Your task to perform on an android device: open app "Adobe Express: Graphic Design" (install if not already installed) Image 0: 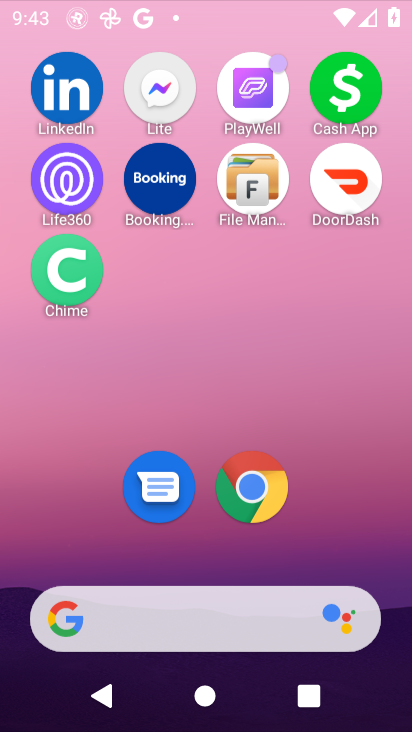
Step 0: drag from (272, 655) to (221, 191)
Your task to perform on an android device: open app "Adobe Express: Graphic Design" (install if not already installed) Image 1: 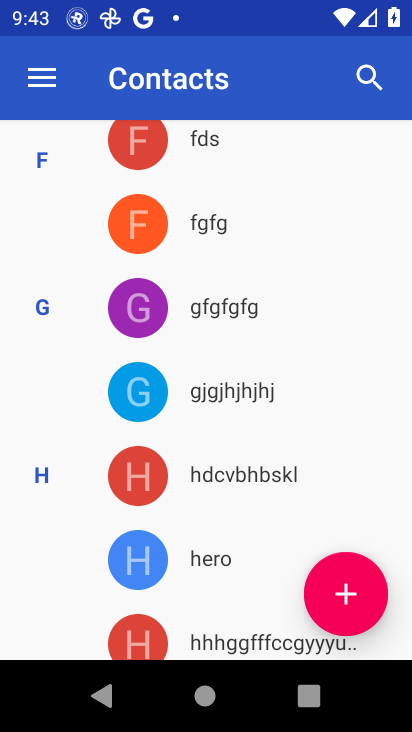
Step 1: press back button
Your task to perform on an android device: open app "Adobe Express: Graphic Design" (install if not already installed) Image 2: 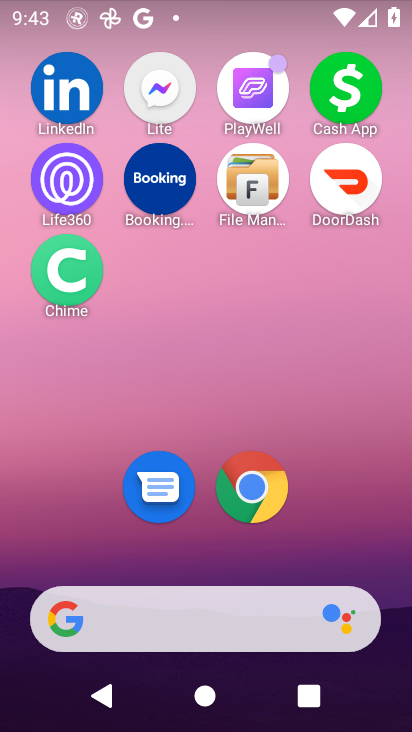
Step 2: drag from (238, 664) to (194, 204)
Your task to perform on an android device: open app "Adobe Express: Graphic Design" (install if not already installed) Image 3: 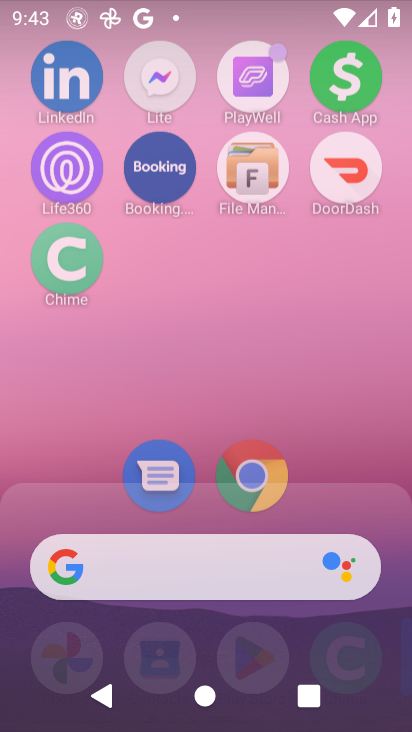
Step 3: drag from (221, 647) to (193, 254)
Your task to perform on an android device: open app "Adobe Express: Graphic Design" (install if not already installed) Image 4: 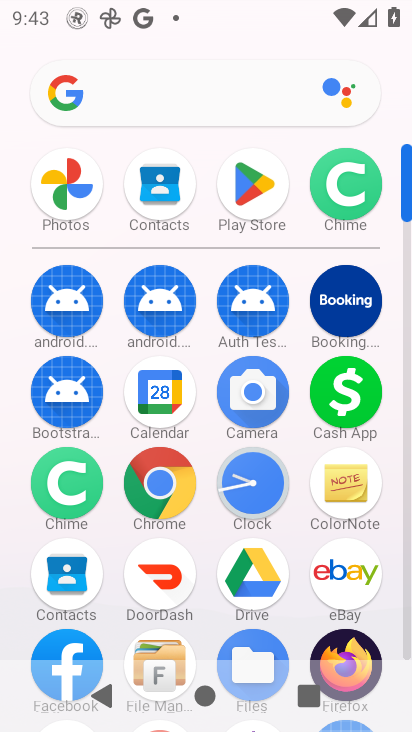
Step 4: click (254, 199)
Your task to perform on an android device: open app "Adobe Express: Graphic Design" (install if not already installed) Image 5: 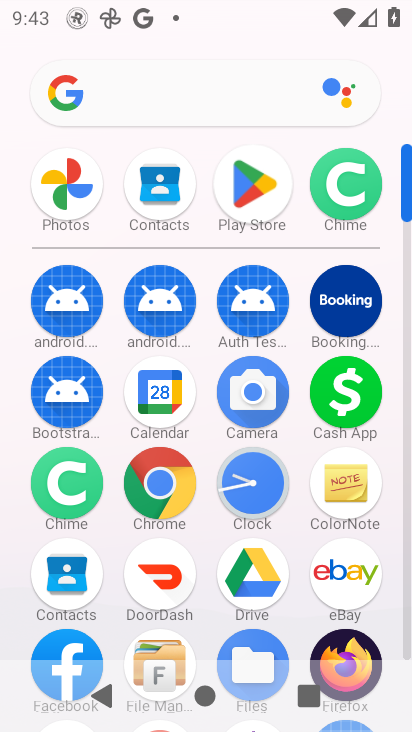
Step 5: click (254, 198)
Your task to perform on an android device: open app "Adobe Express: Graphic Design" (install if not already installed) Image 6: 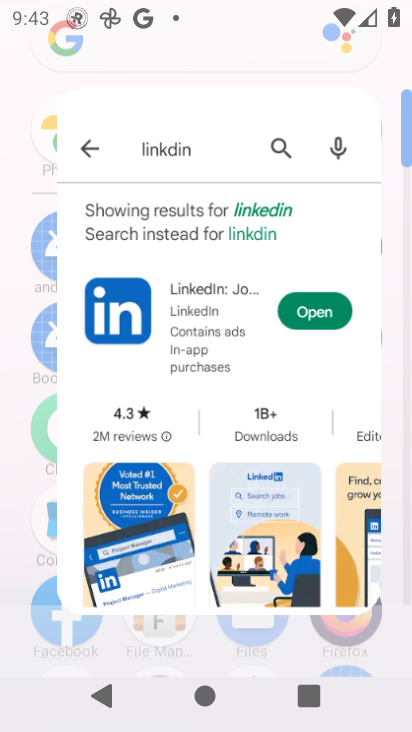
Step 6: click (253, 197)
Your task to perform on an android device: open app "Adobe Express: Graphic Design" (install if not already installed) Image 7: 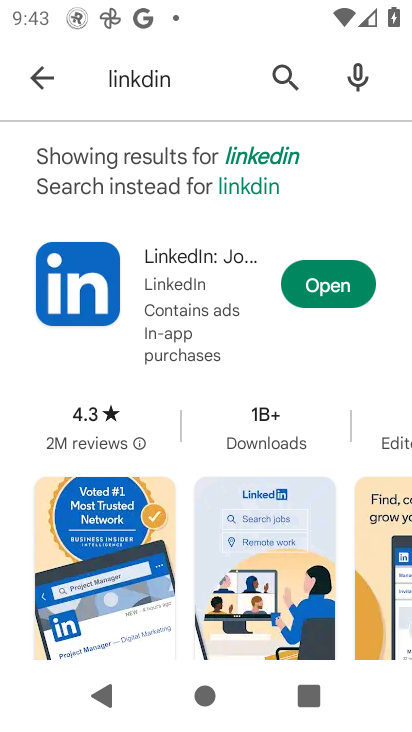
Step 7: click (253, 197)
Your task to perform on an android device: open app "Adobe Express: Graphic Design" (install if not already installed) Image 8: 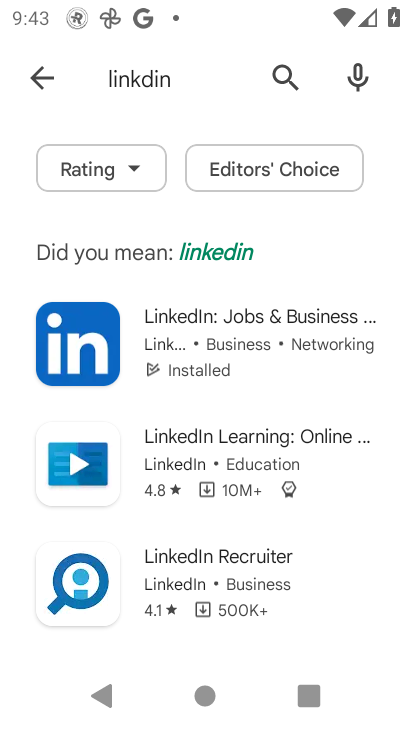
Step 8: click (37, 71)
Your task to perform on an android device: open app "Adobe Express: Graphic Design" (install if not already installed) Image 9: 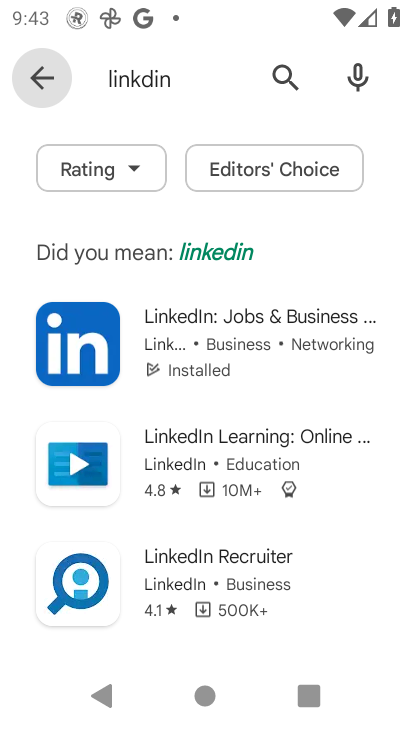
Step 9: click (39, 69)
Your task to perform on an android device: open app "Adobe Express: Graphic Design" (install if not already installed) Image 10: 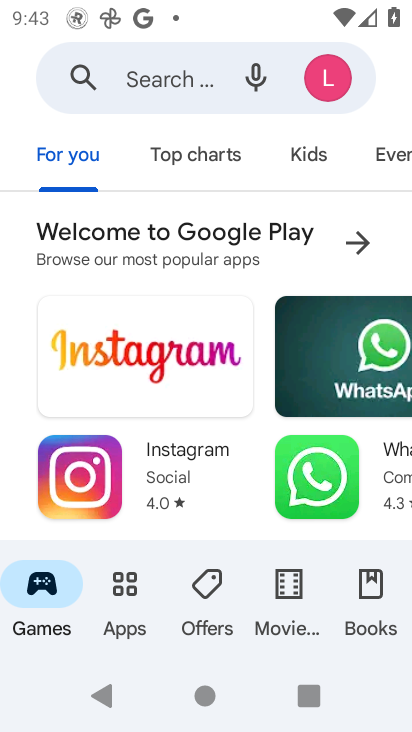
Step 10: click (128, 76)
Your task to perform on an android device: open app "Adobe Express: Graphic Design" (install if not already installed) Image 11: 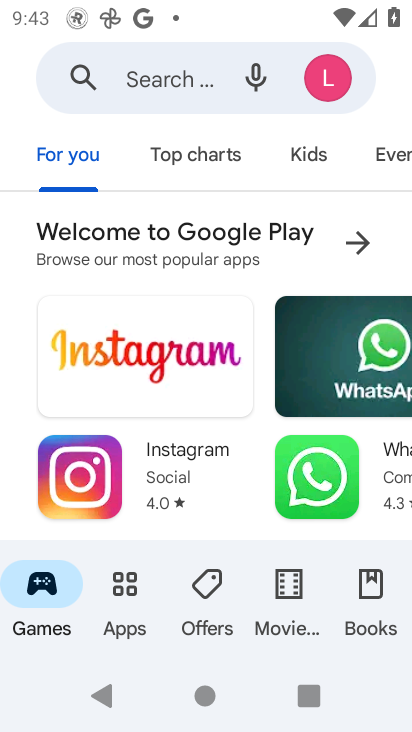
Step 11: click (129, 75)
Your task to perform on an android device: open app "Adobe Express: Graphic Design" (install if not already installed) Image 12: 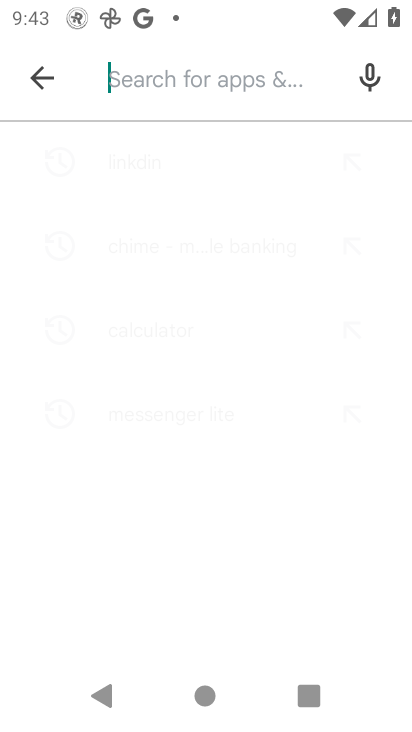
Step 12: click (129, 75)
Your task to perform on an android device: open app "Adobe Express: Graphic Design" (install if not already installed) Image 13: 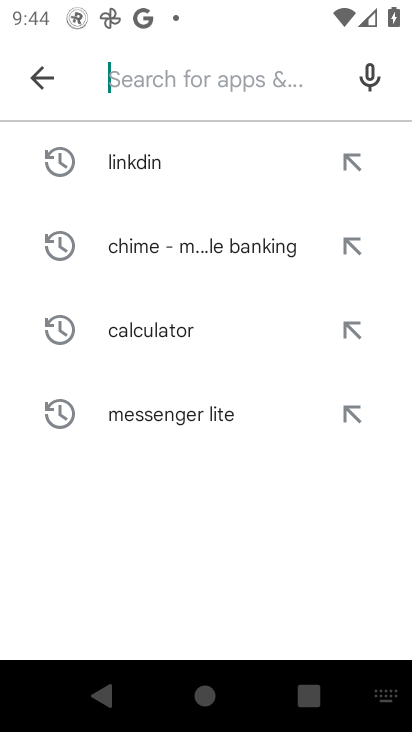
Step 13: type "Adobe EXpress: Graphic Design"
Your task to perform on an android device: open app "Adobe Express: Graphic Design" (install if not already installed) Image 14: 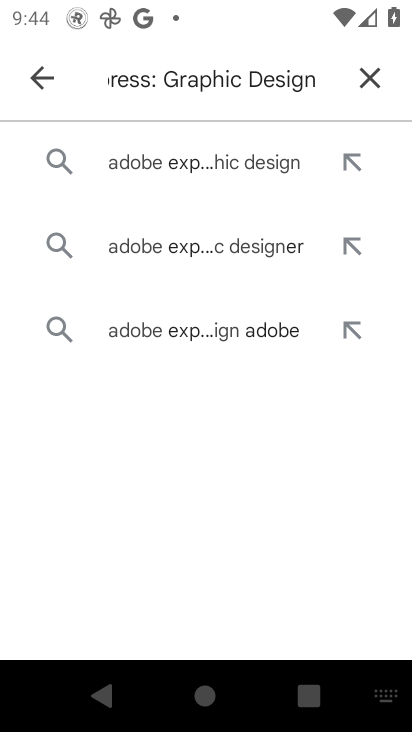
Step 14: click (234, 161)
Your task to perform on an android device: open app "Adobe Express: Graphic Design" (install if not already installed) Image 15: 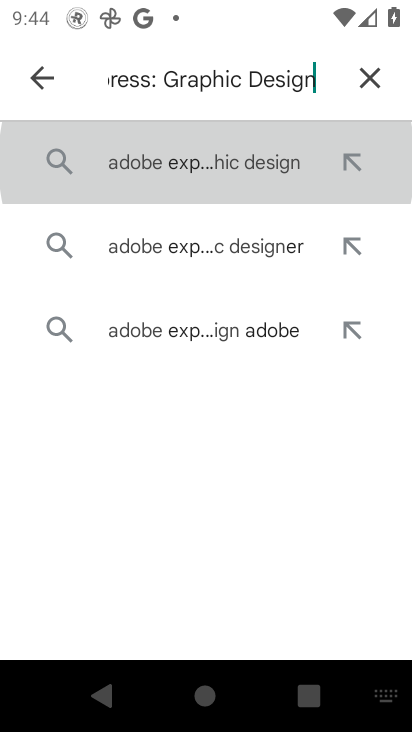
Step 15: click (234, 161)
Your task to perform on an android device: open app "Adobe Express: Graphic Design" (install if not already installed) Image 16: 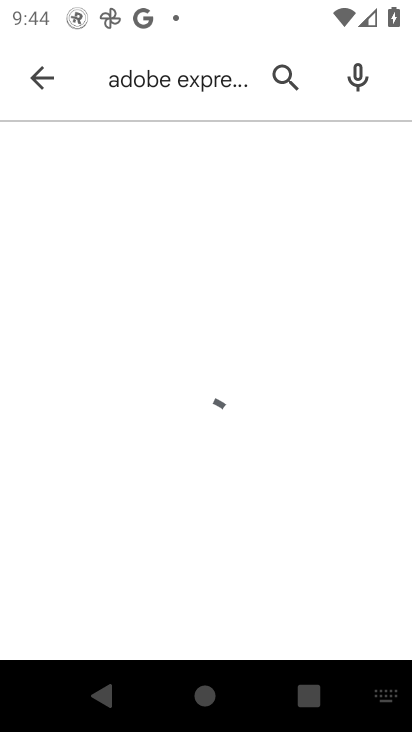
Step 16: click (235, 162)
Your task to perform on an android device: open app "Adobe Express: Graphic Design" (install if not already installed) Image 17: 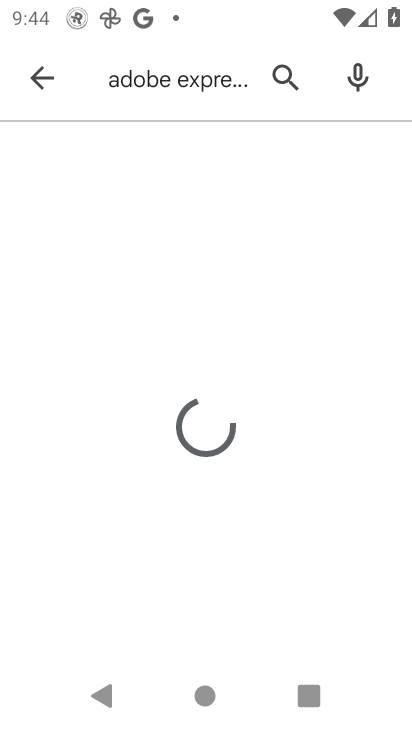
Step 17: click (236, 161)
Your task to perform on an android device: open app "Adobe Express: Graphic Design" (install if not already installed) Image 18: 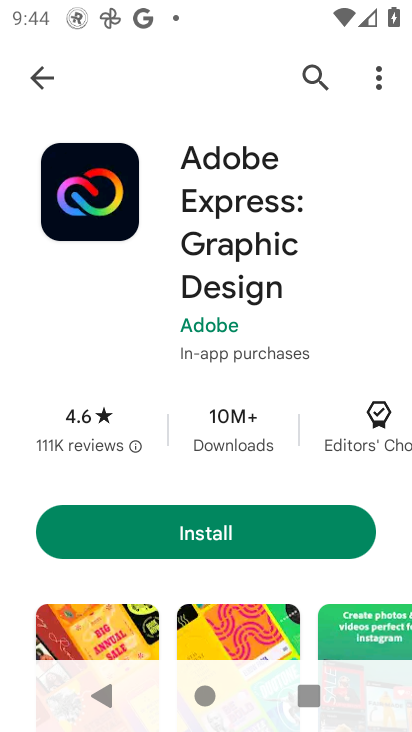
Step 18: click (252, 532)
Your task to perform on an android device: open app "Adobe Express: Graphic Design" (install if not already installed) Image 19: 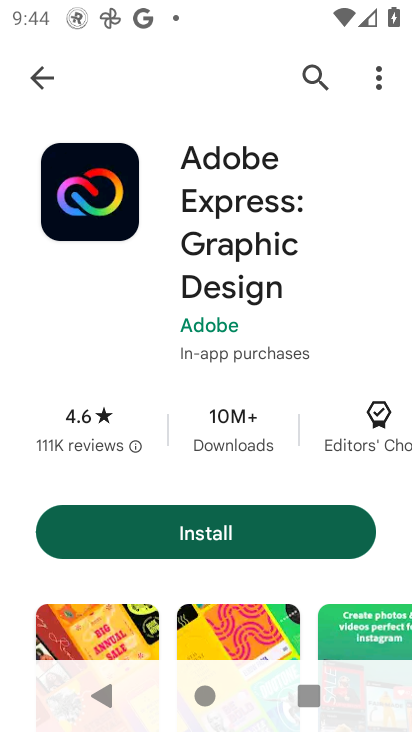
Step 19: click (250, 530)
Your task to perform on an android device: open app "Adobe Express: Graphic Design" (install if not already installed) Image 20: 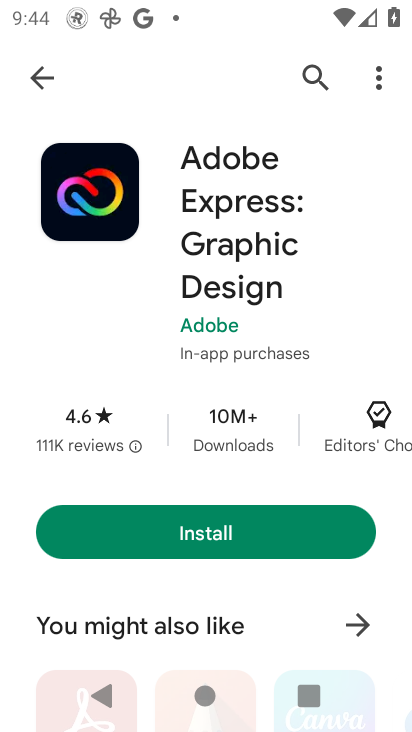
Step 20: click (223, 499)
Your task to perform on an android device: open app "Adobe Express: Graphic Design" (install if not already installed) Image 21: 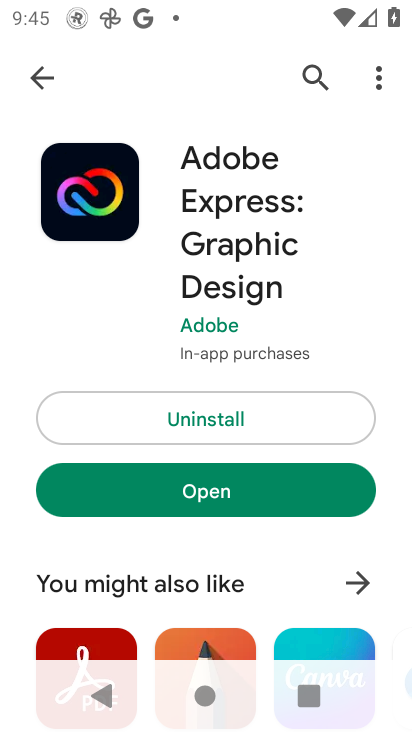
Step 21: click (232, 485)
Your task to perform on an android device: open app "Adobe Express: Graphic Design" (install if not already installed) Image 22: 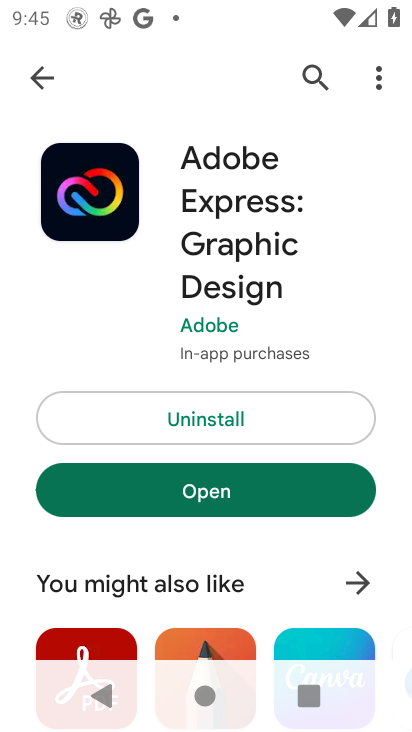
Step 22: click (232, 485)
Your task to perform on an android device: open app "Adobe Express: Graphic Design" (install if not already installed) Image 23: 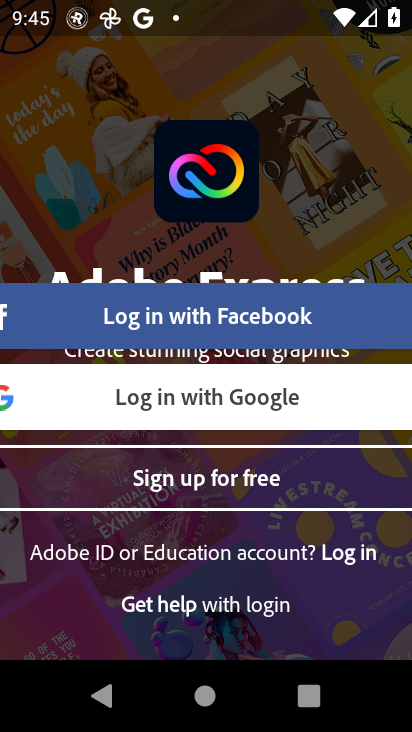
Step 23: task complete